Your task to perform on an android device: Open settings Image 0: 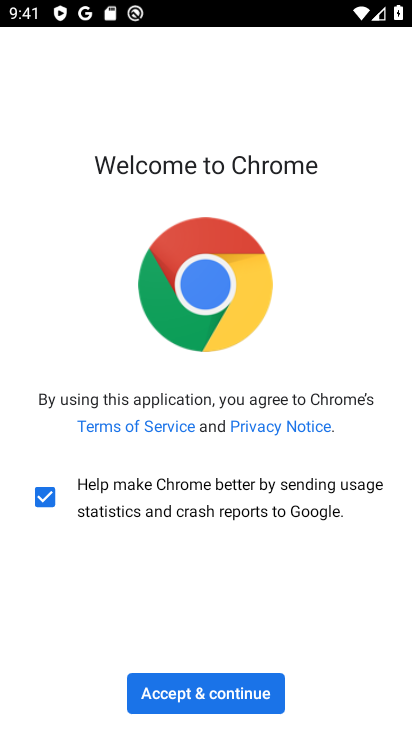
Step 0: click (237, 691)
Your task to perform on an android device: Open settings Image 1: 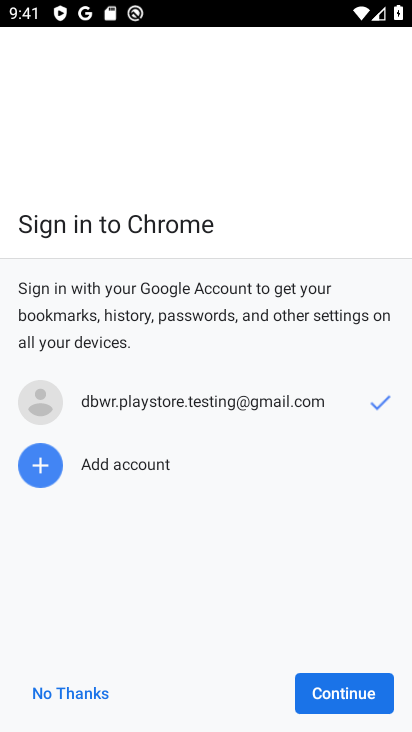
Step 1: click (342, 689)
Your task to perform on an android device: Open settings Image 2: 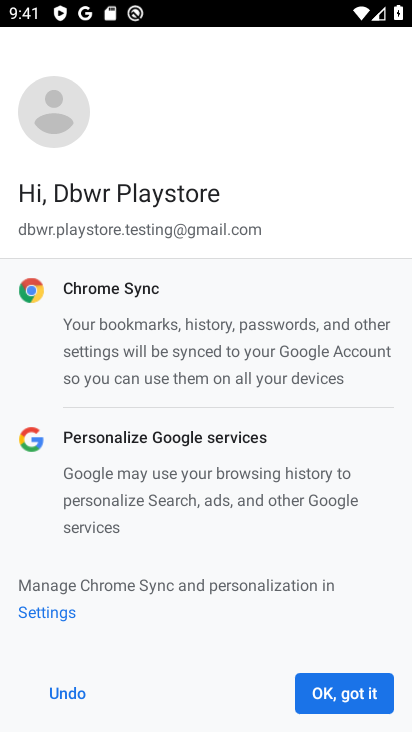
Step 2: press back button
Your task to perform on an android device: Open settings Image 3: 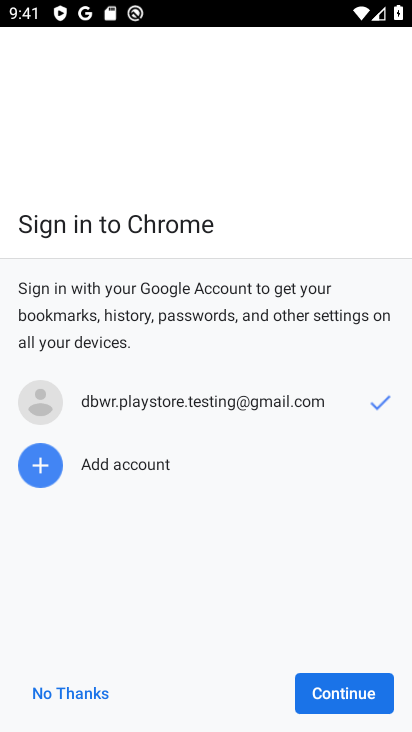
Step 3: press home button
Your task to perform on an android device: Open settings Image 4: 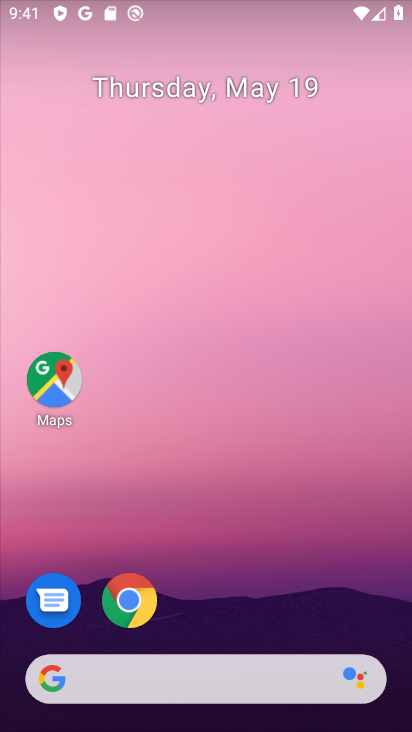
Step 4: drag from (287, 565) to (201, 9)
Your task to perform on an android device: Open settings Image 5: 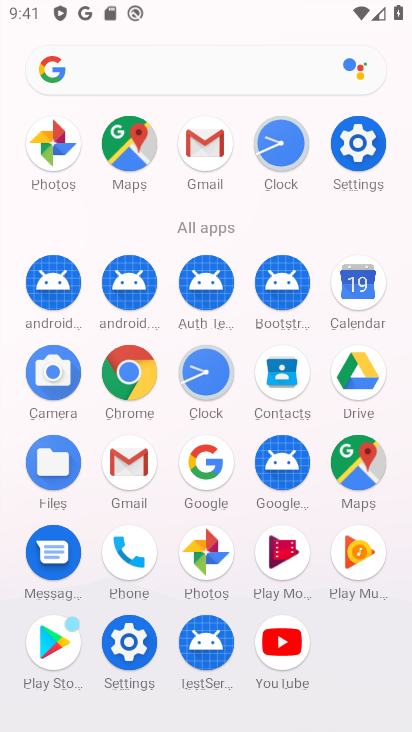
Step 5: click (129, 636)
Your task to perform on an android device: Open settings Image 6: 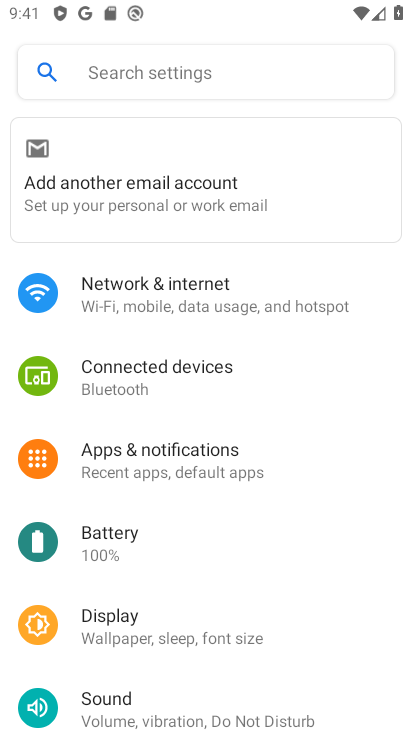
Step 6: task complete